Your task to perform on an android device: check battery use Image 0: 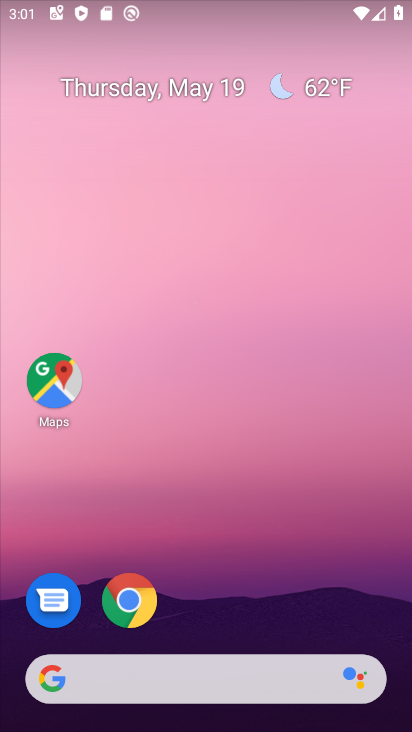
Step 0: press home button
Your task to perform on an android device: check battery use Image 1: 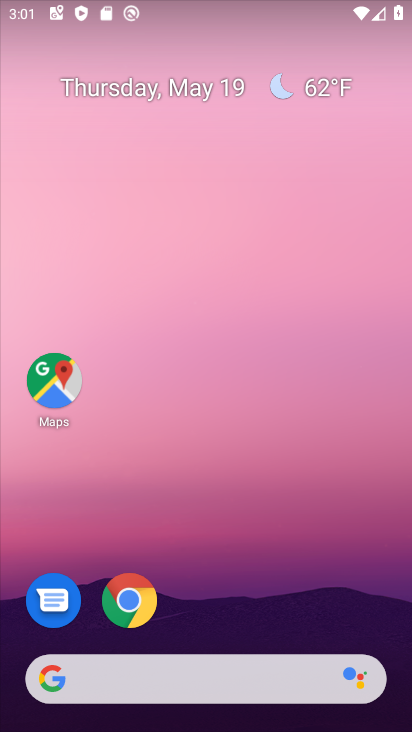
Step 1: drag from (28, 579) to (272, 164)
Your task to perform on an android device: check battery use Image 2: 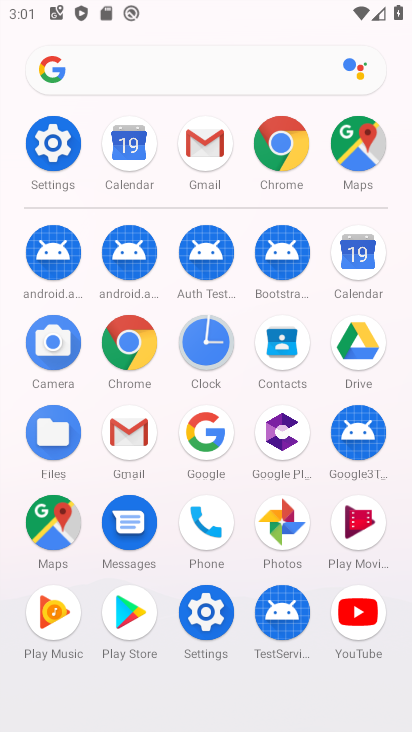
Step 2: click (43, 140)
Your task to perform on an android device: check battery use Image 3: 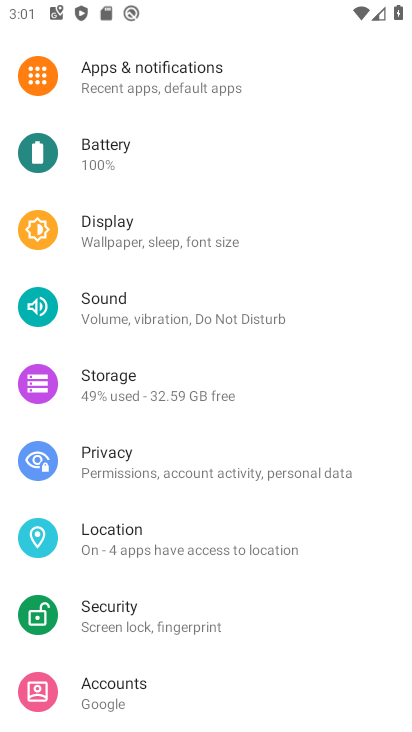
Step 3: click (95, 172)
Your task to perform on an android device: check battery use Image 4: 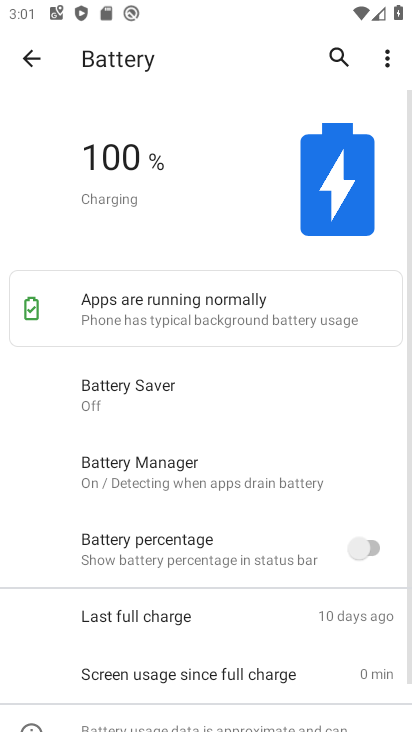
Step 4: task complete